Your task to perform on an android device: change notifications settings Image 0: 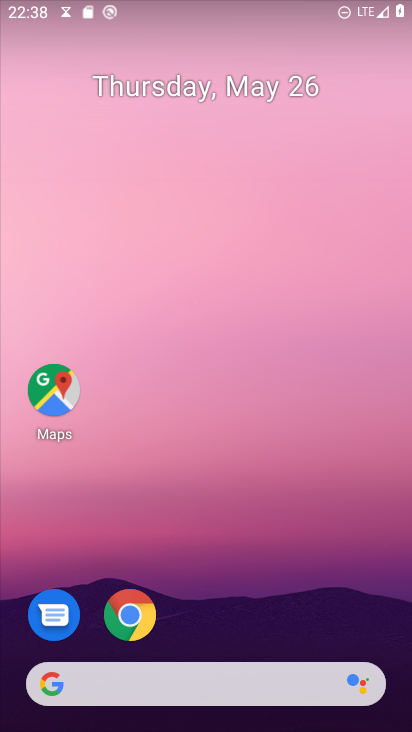
Step 0: drag from (254, 615) to (272, 165)
Your task to perform on an android device: change notifications settings Image 1: 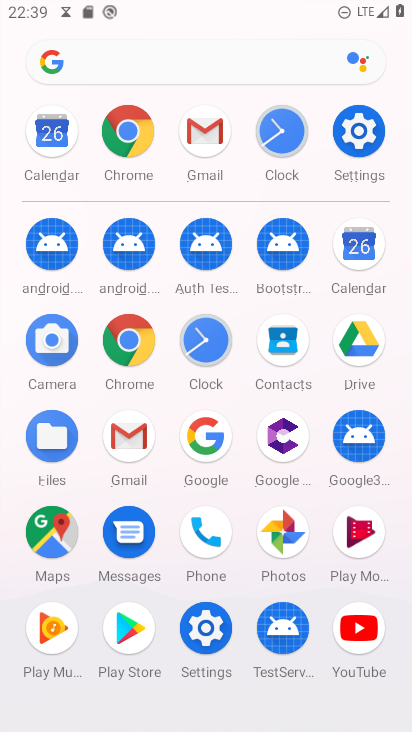
Step 1: click (357, 117)
Your task to perform on an android device: change notifications settings Image 2: 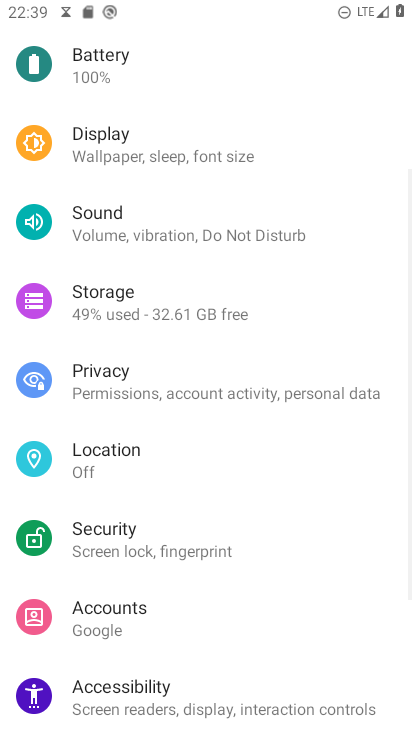
Step 2: drag from (179, 102) to (207, 586)
Your task to perform on an android device: change notifications settings Image 3: 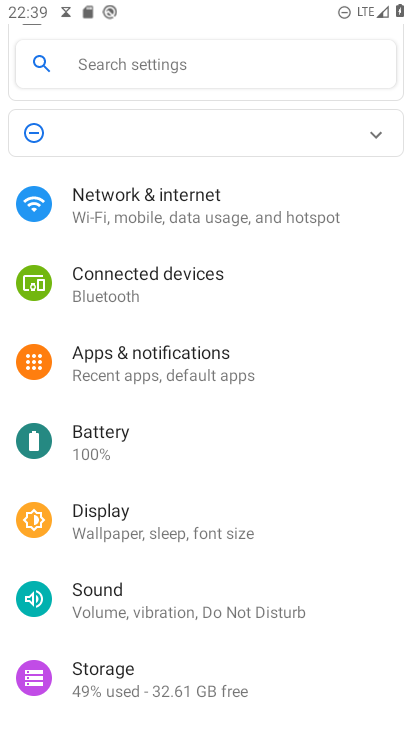
Step 3: click (160, 367)
Your task to perform on an android device: change notifications settings Image 4: 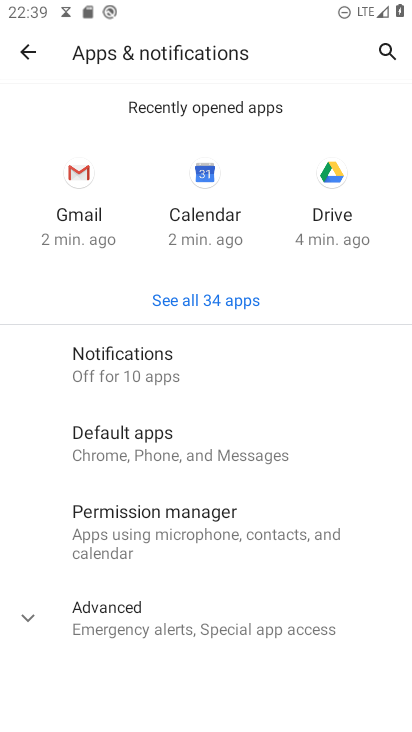
Step 4: click (179, 362)
Your task to perform on an android device: change notifications settings Image 5: 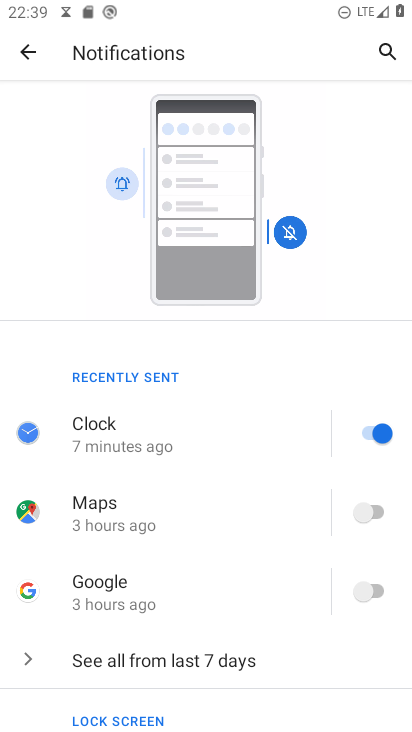
Step 5: drag from (272, 593) to (264, 373)
Your task to perform on an android device: change notifications settings Image 6: 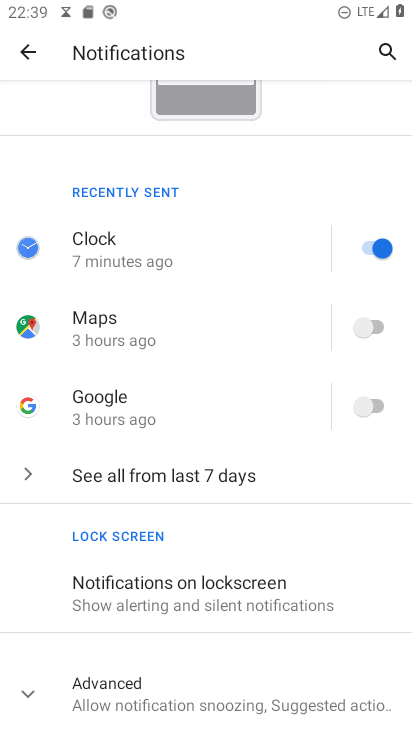
Step 6: click (215, 483)
Your task to perform on an android device: change notifications settings Image 7: 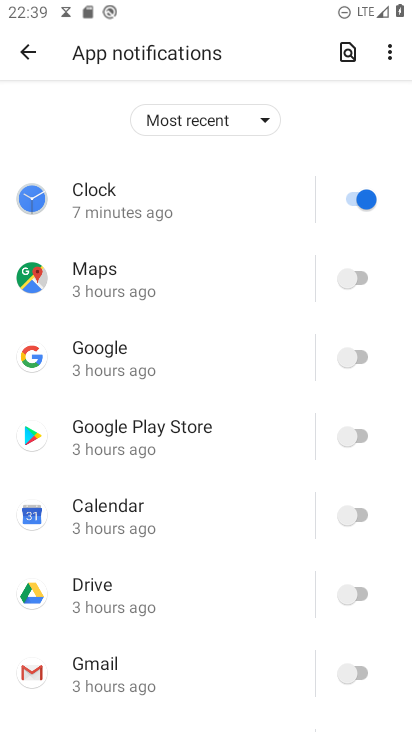
Step 7: click (348, 275)
Your task to perform on an android device: change notifications settings Image 8: 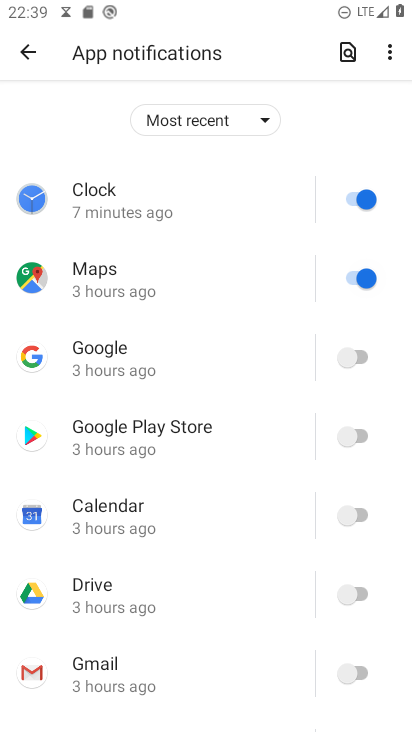
Step 8: click (362, 350)
Your task to perform on an android device: change notifications settings Image 9: 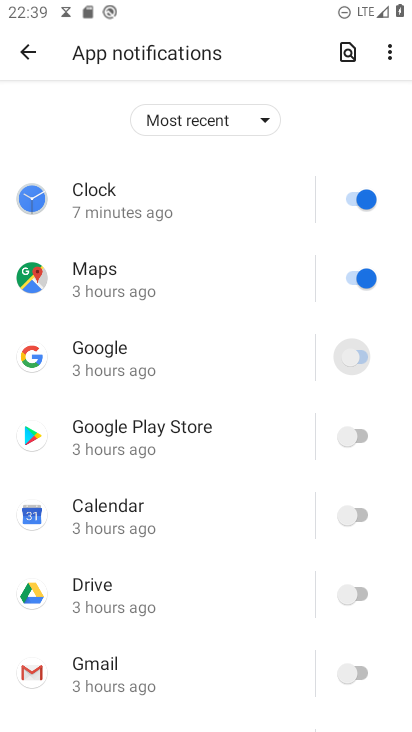
Step 9: click (358, 430)
Your task to perform on an android device: change notifications settings Image 10: 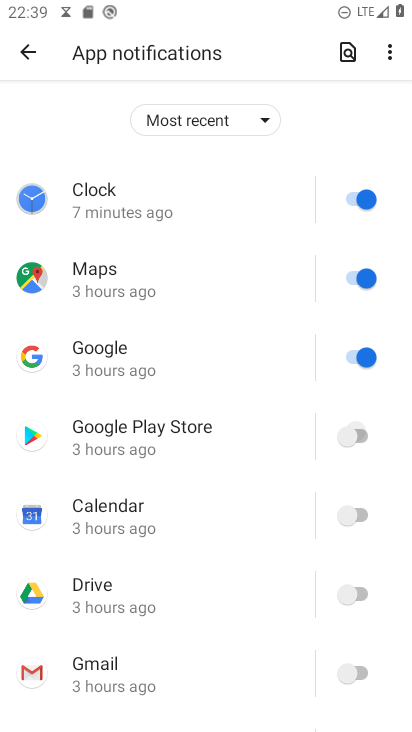
Step 10: click (358, 514)
Your task to perform on an android device: change notifications settings Image 11: 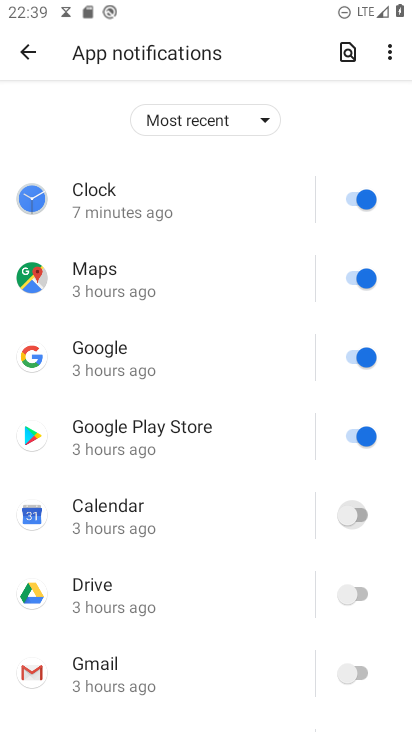
Step 11: click (355, 574)
Your task to perform on an android device: change notifications settings Image 12: 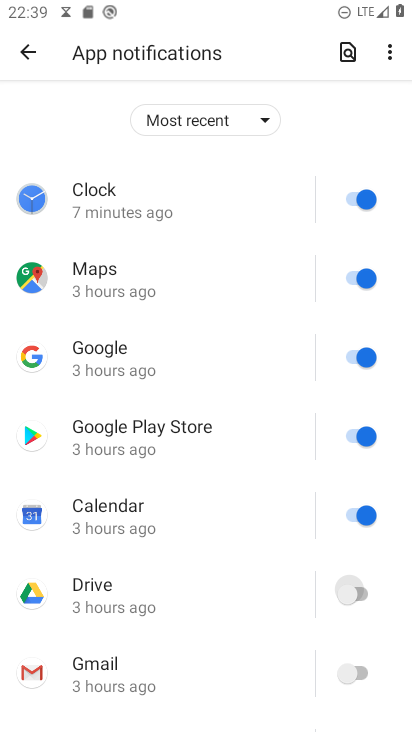
Step 12: click (350, 665)
Your task to perform on an android device: change notifications settings Image 13: 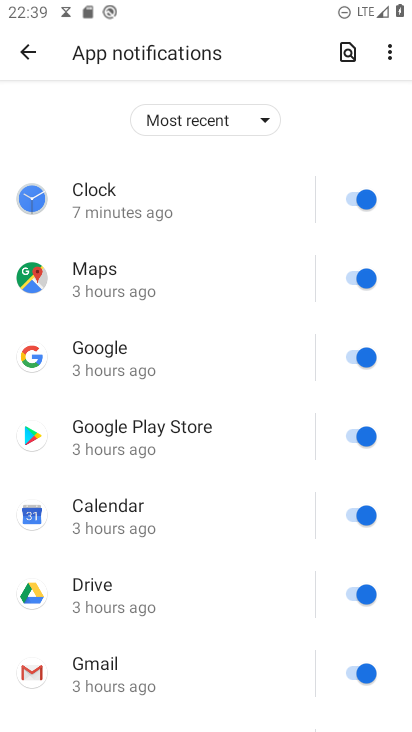
Step 13: drag from (238, 616) to (257, 269)
Your task to perform on an android device: change notifications settings Image 14: 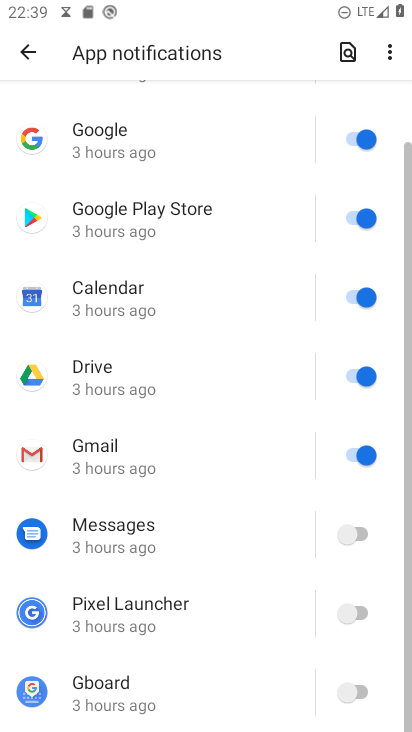
Step 14: click (365, 517)
Your task to perform on an android device: change notifications settings Image 15: 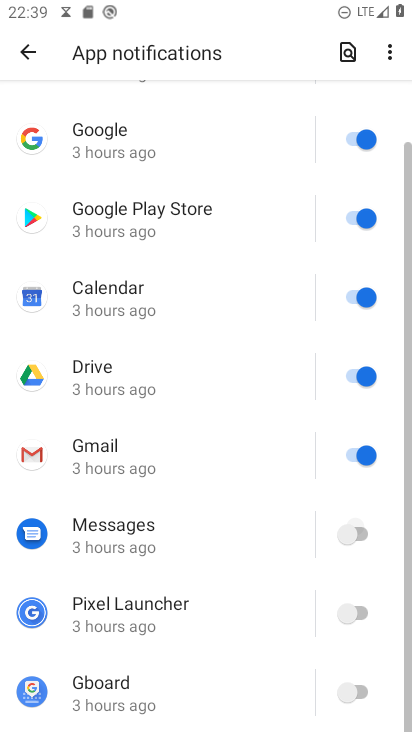
Step 15: click (352, 611)
Your task to perform on an android device: change notifications settings Image 16: 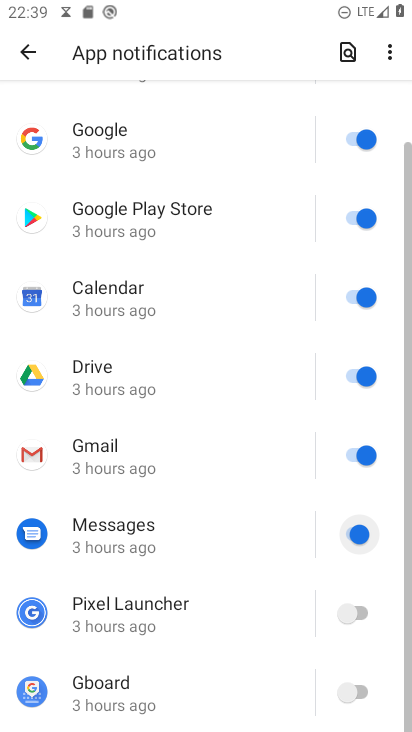
Step 16: click (361, 706)
Your task to perform on an android device: change notifications settings Image 17: 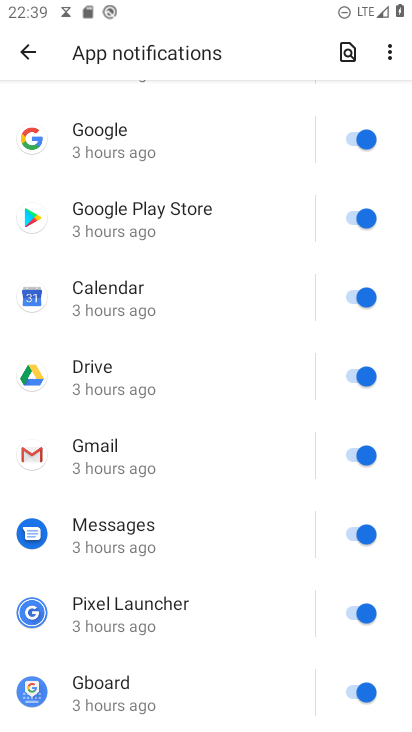
Step 17: task complete